Your task to perform on an android device: Open calendar and show me the second week of next month Image 0: 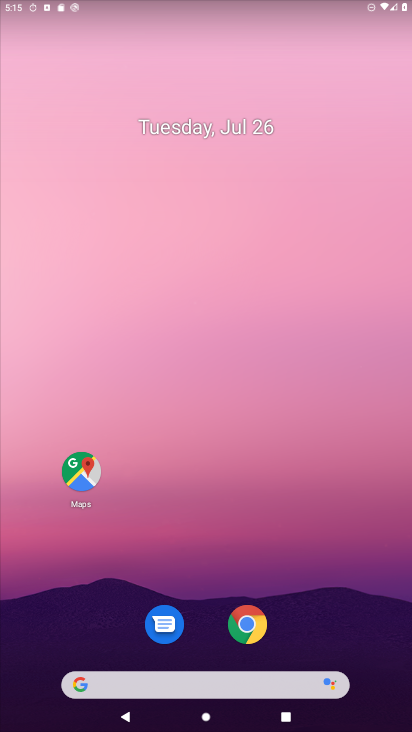
Step 0: drag from (252, 685) to (213, 1)
Your task to perform on an android device: Open calendar and show me the second week of next month Image 1: 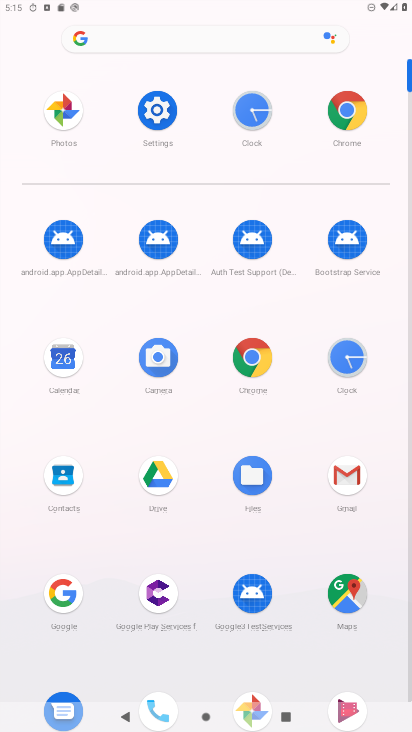
Step 1: click (51, 356)
Your task to perform on an android device: Open calendar and show me the second week of next month Image 2: 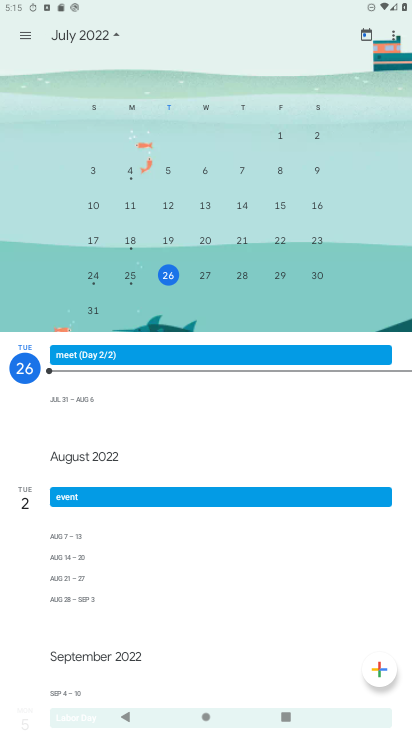
Step 2: drag from (318, 215) to (66, 234)
Your task to perform on an android device: Open calendar and show me the second week of next month Image 3: 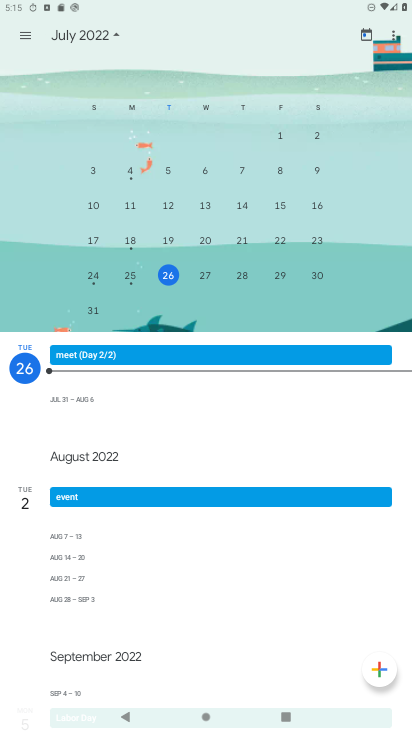
Step 3: drag from (366, 187) to (0, 278)
Your task to perform on an android device: Open calendar and show me the second week of next month Image 4: 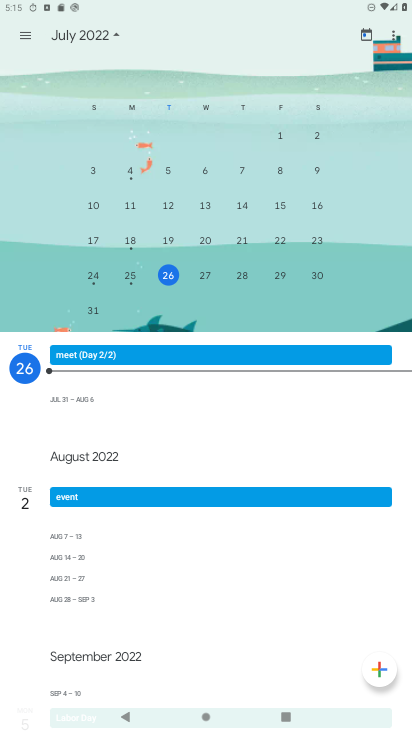
Step 4: drag from (368, 269) to (4, 293)
Your task to perform on an android device: Open calendar and show me the second week of next month Image 5: 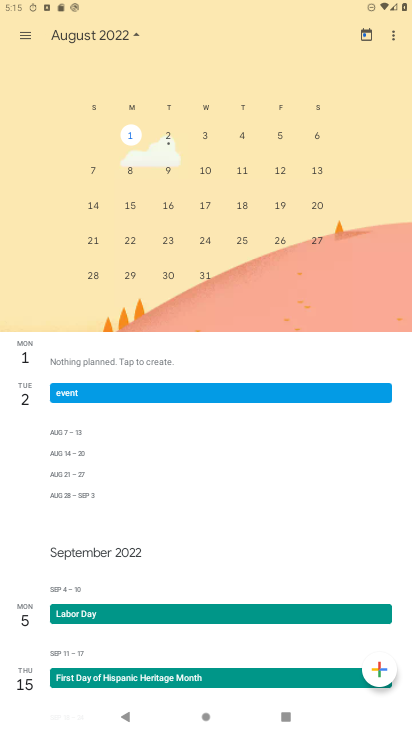
Step 5: click (208, 166)
Your task to perform on an android device: Open calendar and show me the second week of next month Image 6: 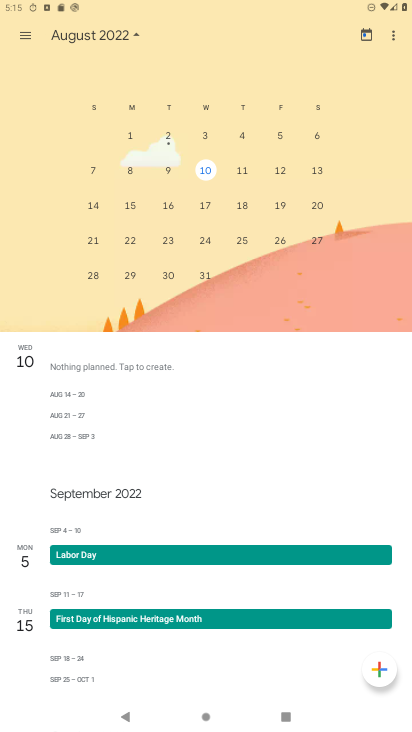
Step 6: task complete